Your task to perform on an android device: Open the map Image 0: 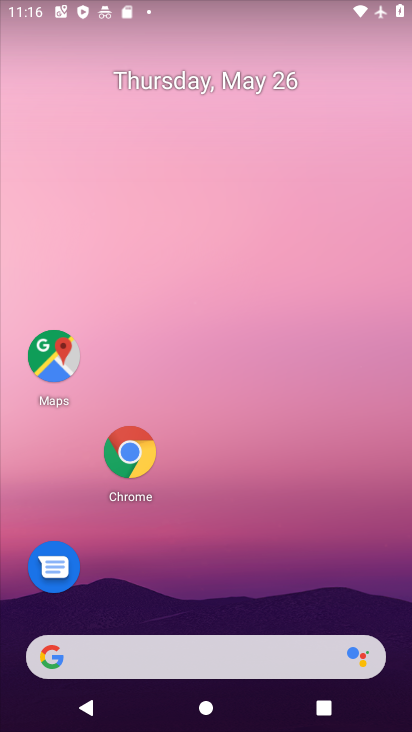
Step 0: press home button
Your task to perform on an android device: Open the map Image 1: 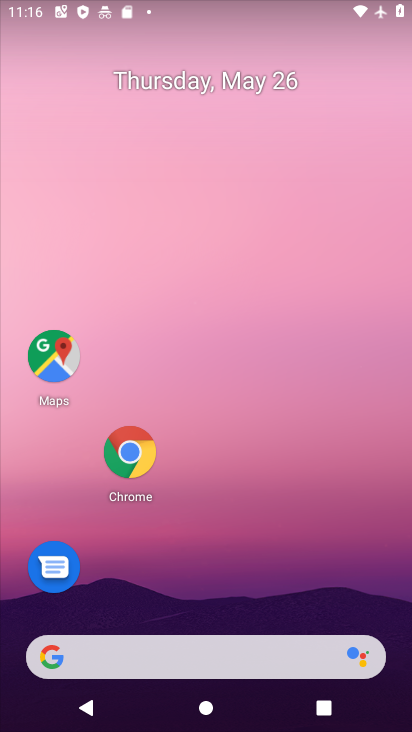
Step 1: click (50, 358)
Your task to perform on an android device: Open the map Image 2: 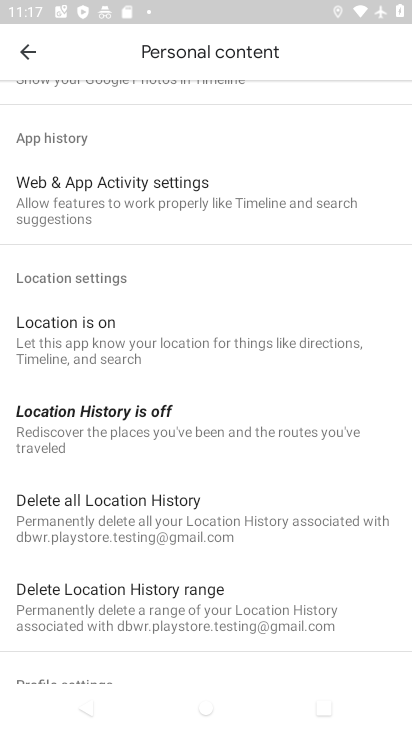
Step 2: drag from (249, 142) to (257, 461)
Your task to perform on an android device: Open the map Image 3: 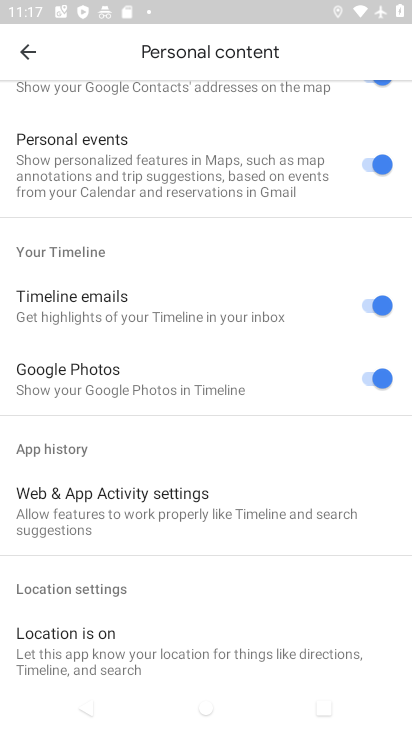
Step 3: click (27, 54)
Your task to perform on an android device: Open the map Image 4: 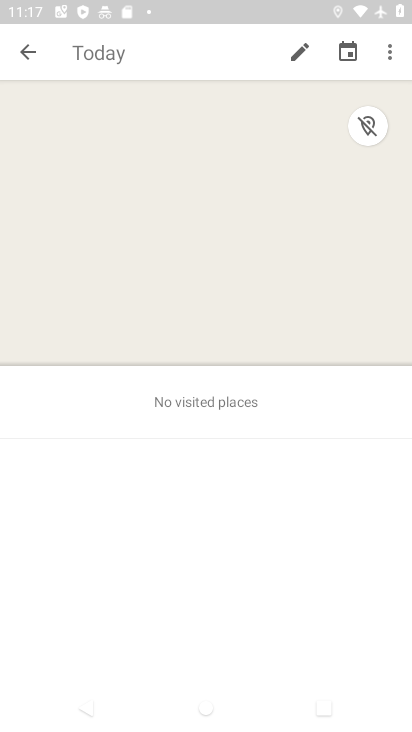
Step 4: click (27, 55)
Your task to perform on an android device: Open the map Image 5: 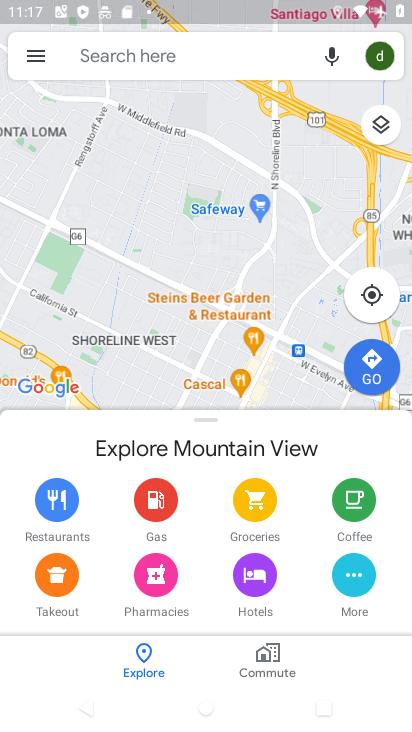
Step 5: task complete